Your task to perform on an android device: turn on showing notifications on the lock screen Image 0: 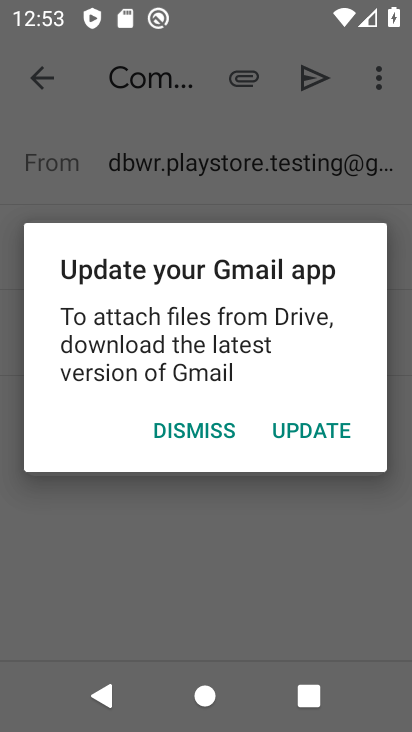
Step 0: press home button
Your task to perform on an android device: turn on showing notifications on the lock screen Image 1: 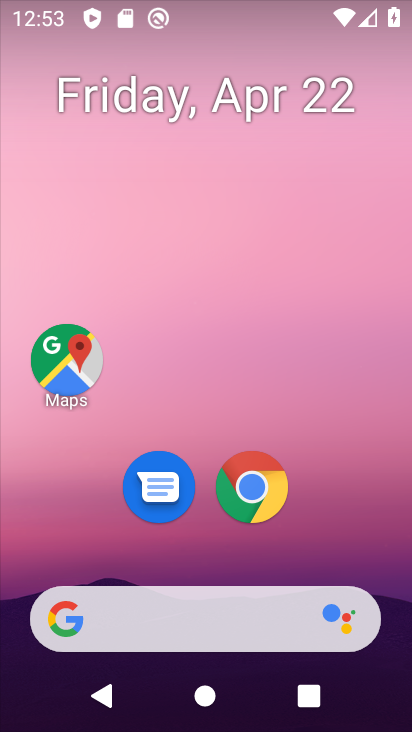
Step 1: drag from (321, 549) to (280, 39)
Your task to perform on an android device: turn on showing notifications on the lock screen Image 2: 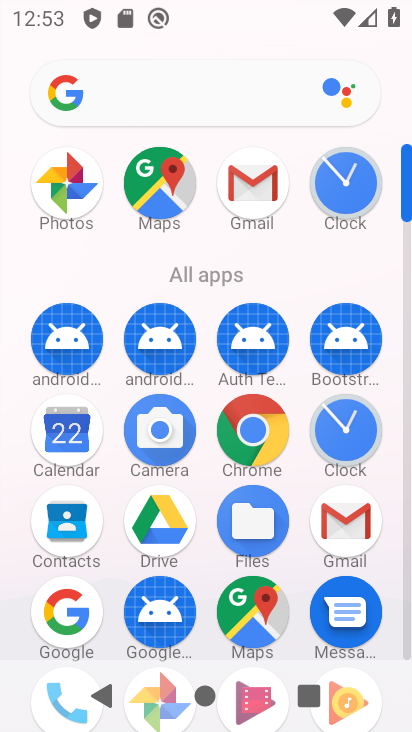
Step 2: drag from (305, 295) to (285, 30)
Your task to perform on an android device: turn on showing notifications on the lock screen Image 3: 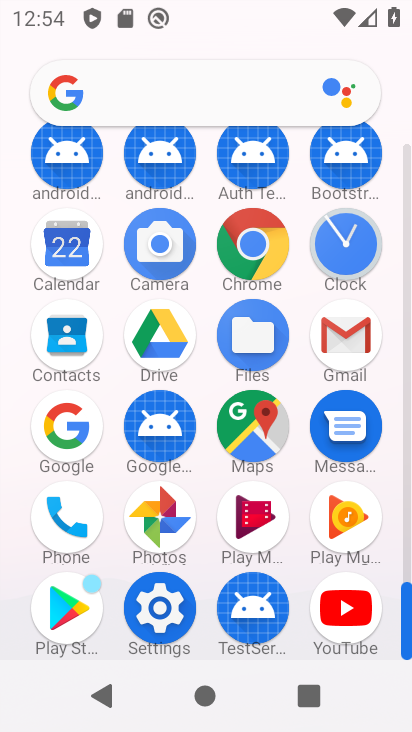
Step 3: click (162, 608)
Your task to perform on an android device: turn on showing notifications on the lock screen Image 4: 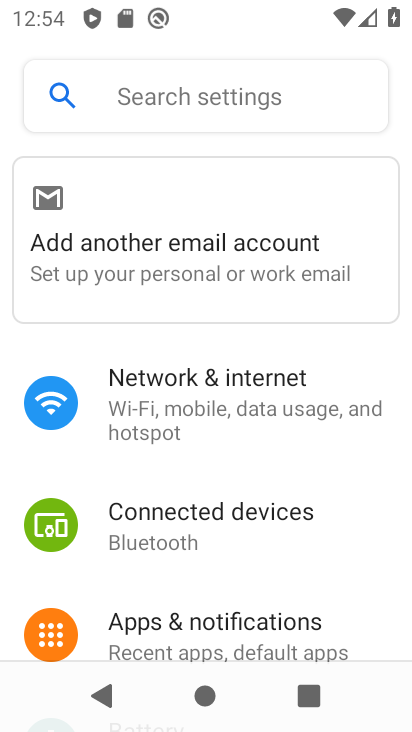
Step 4: click (235, 622)
Your task to perform on an android device: turn on showing notifications on the lock screen Image 5: 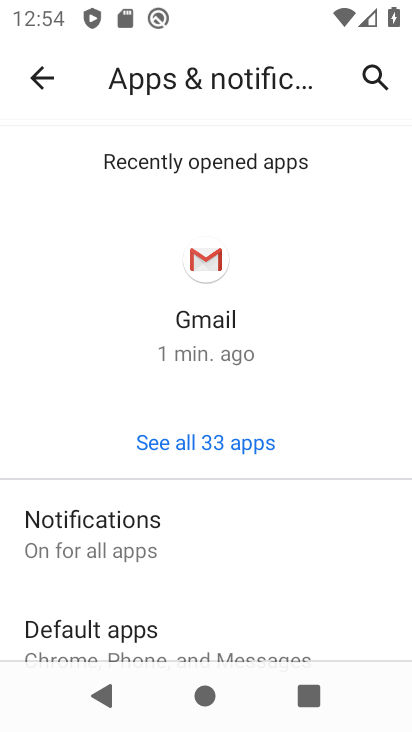
Step 5: click (132, 517)
Your task to perform on an android device: turn on showing notifications on the lock screen Image 6: 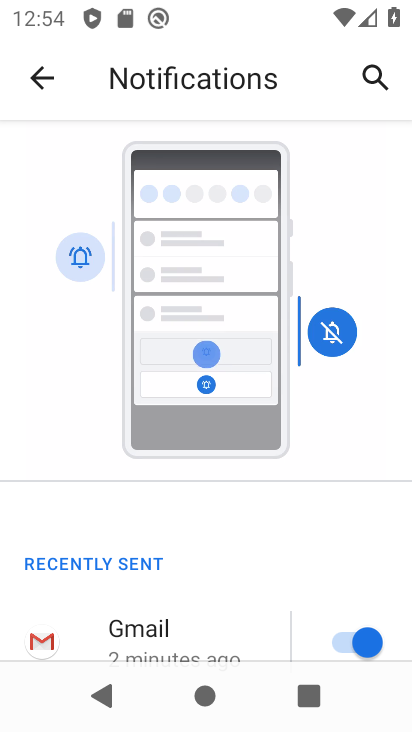
Step 6: drag from (221, 534) to (333, 248)
Your task to perform on an android device: turn on showing notifications on the lock screen Image 7: 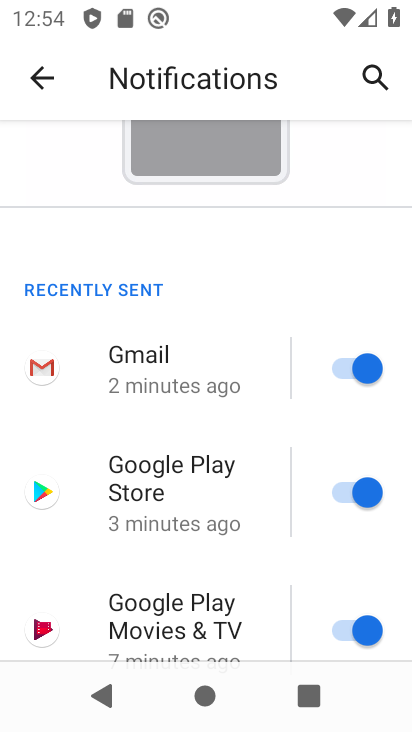
Step 7: drag from (244, 552) to (315, 240)
Your task to perform on an android device: turn on showing notifications on the lock screen Image 8: 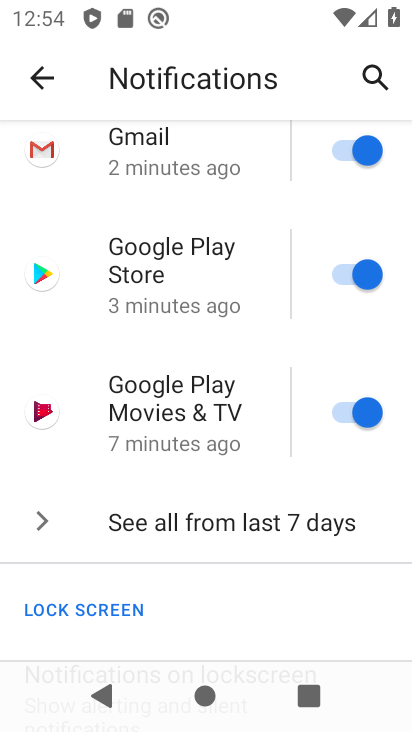
Step 8: drag from (226, 595) to (304, 376)
Your task to perform on an android device: turn on showing notifications on the lock screen Image 9: 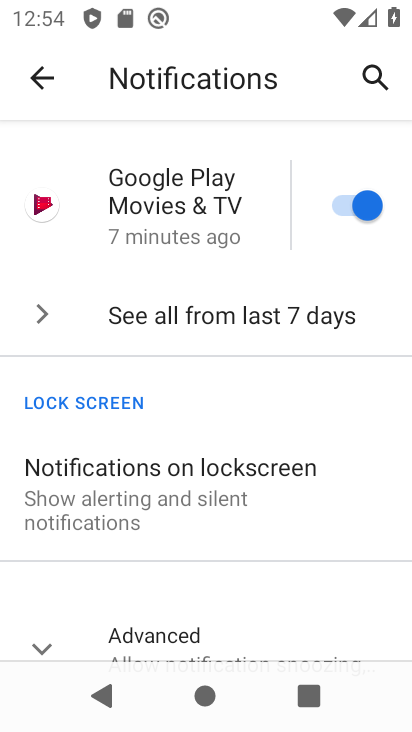
Step 9: click (269, 463)
Your task to perform on an android device: turn on showing notifications on the lock screen Image 10: 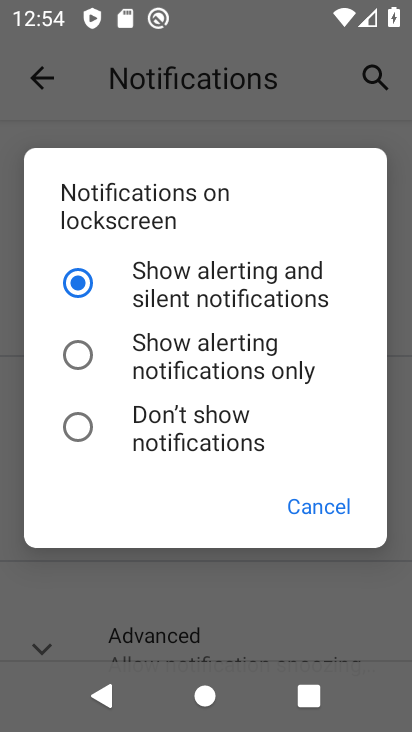
Step 10: click (82, 282)
Your task to perform on an android device: turn on showing notifications on the lock screen Image 11: 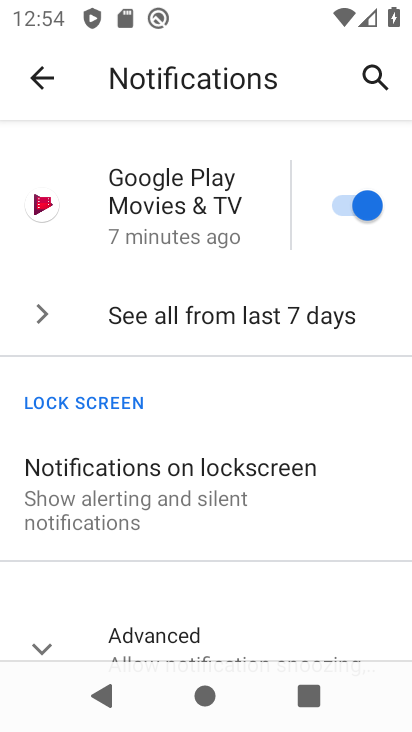
Step 11: task complete